Your task to perform on an android device: Open Google Maps and go to "Timeline" Image 0: 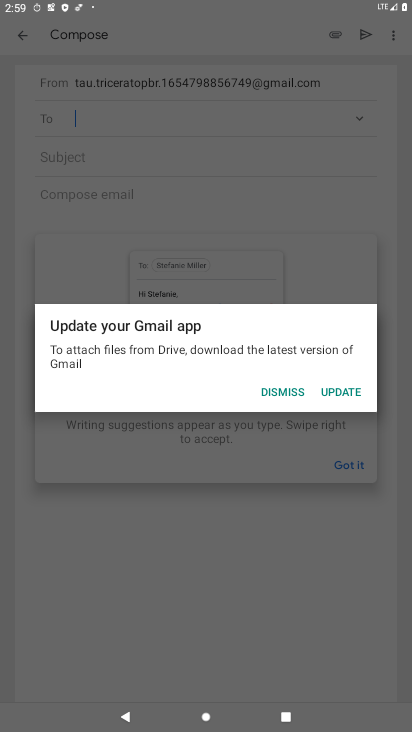
Step 0: press home button
Your task to perform on an android device: Open Google Maps and go to "Timeline" Image 1: 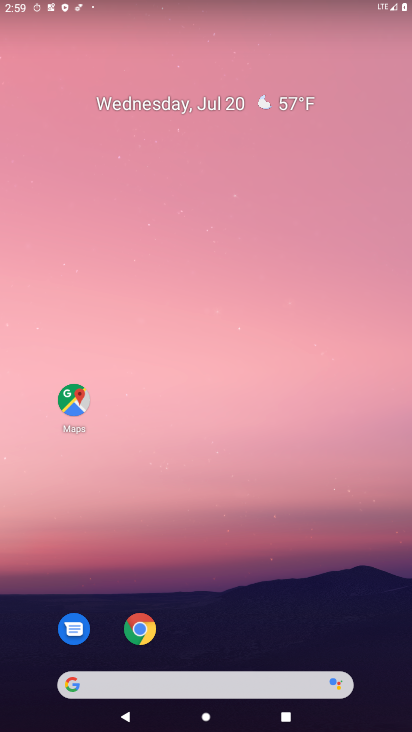
Step 1: click (79, 387)
Your task to perform on an android device: Open Google Maps and go to "Timeline" Image 2: 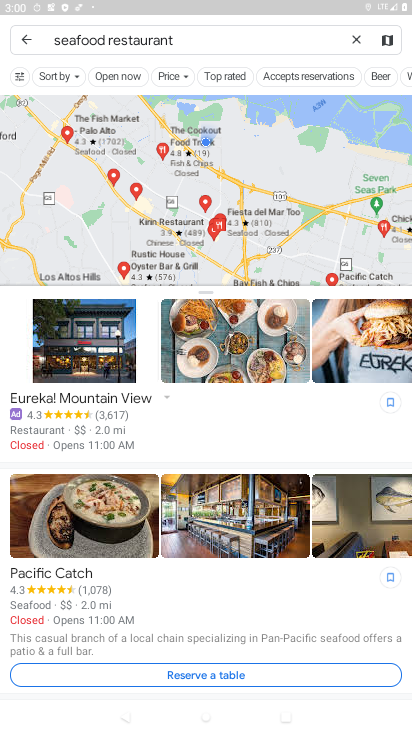
Step 2: click (21, 47)
Your task to perform on an android device: Open Google Maps and go to "Timeline" Image 3: 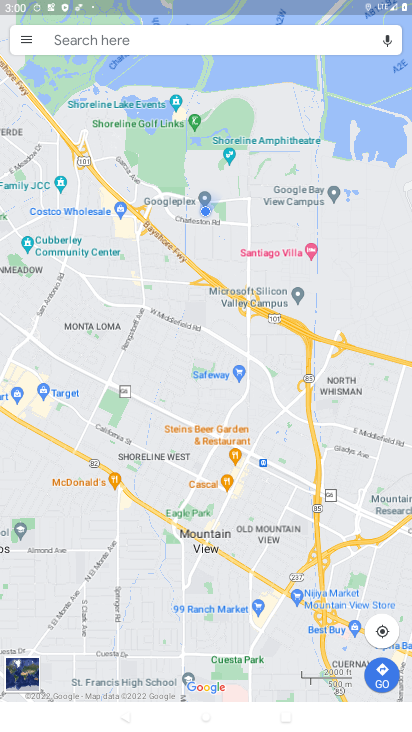
Step 3: click (29, 37)
Your task to perform on an android device: Open Google Maps and go to "Timeline" Image 4: 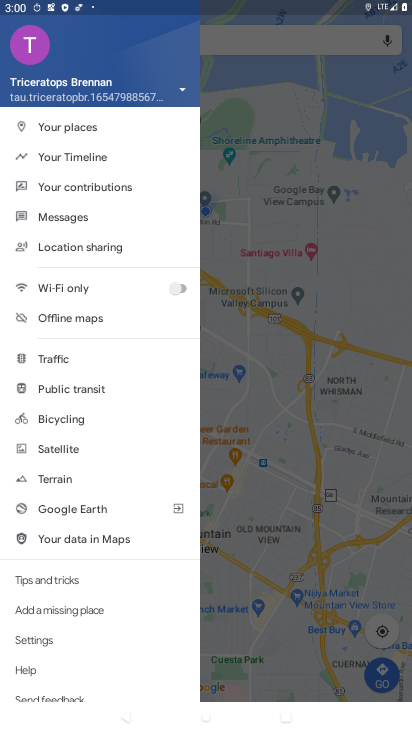
Step 4: click (82, 152)
Your task to perform on an android device: Open Google Maps and go to "Timeline" Image 5: 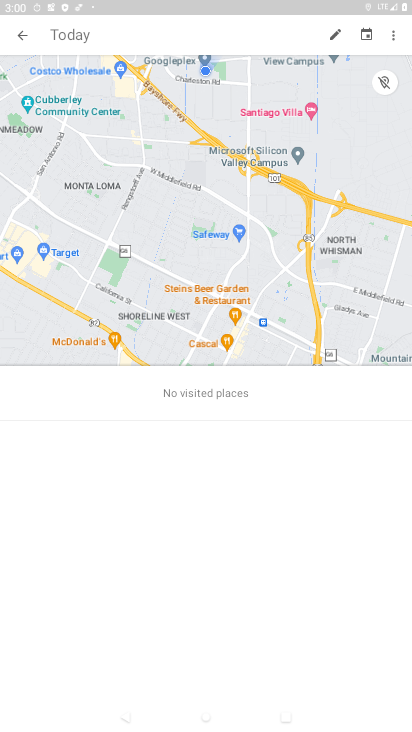
Step 5: task complete